Your task to perform on an android device: Search for hotels in Boston Image 0: 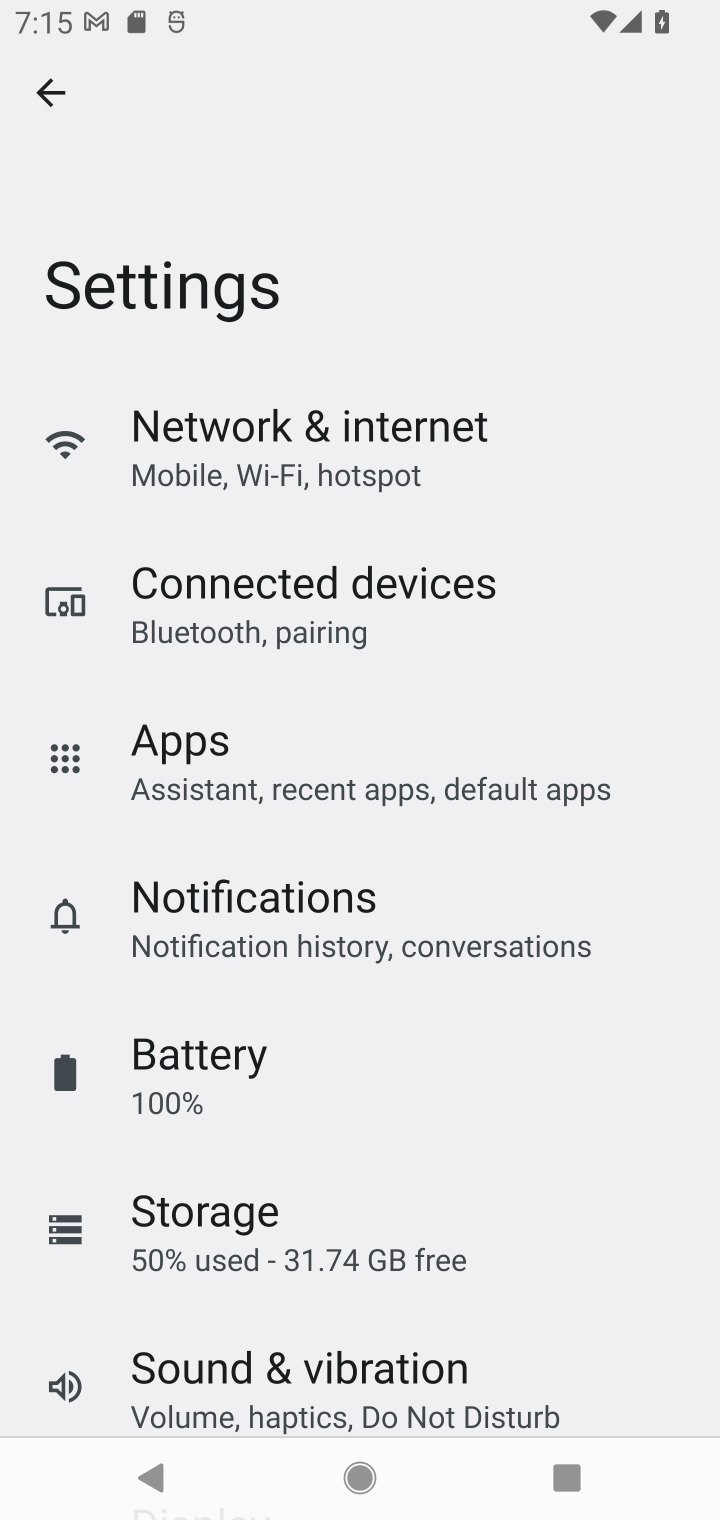
Step 0: press home button
Your task to perform on an android device: Search for hotels in Boston Image 1: 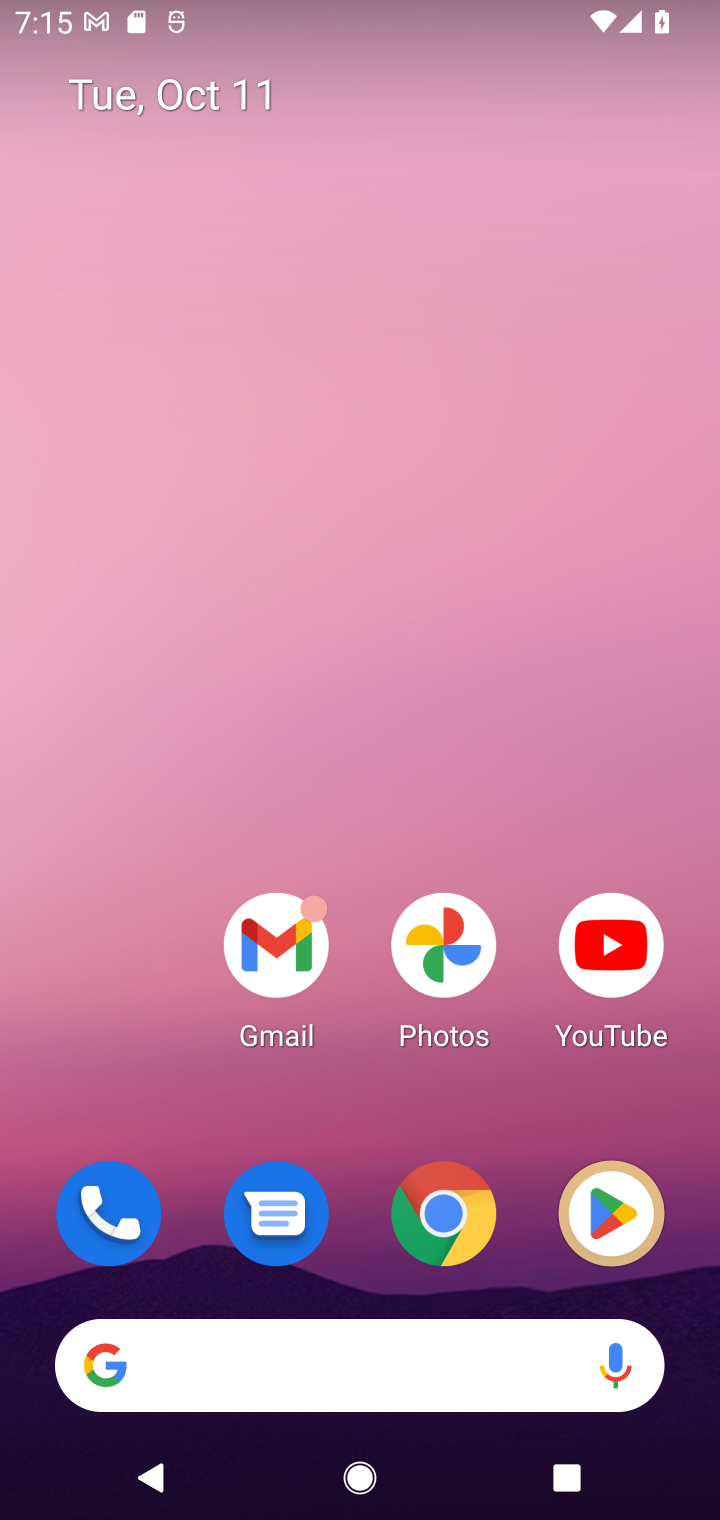
Step 1: drag from (294, 967) to (294, 240)
Your task to perform on an android device: Search for hotels in Boston Image 2: 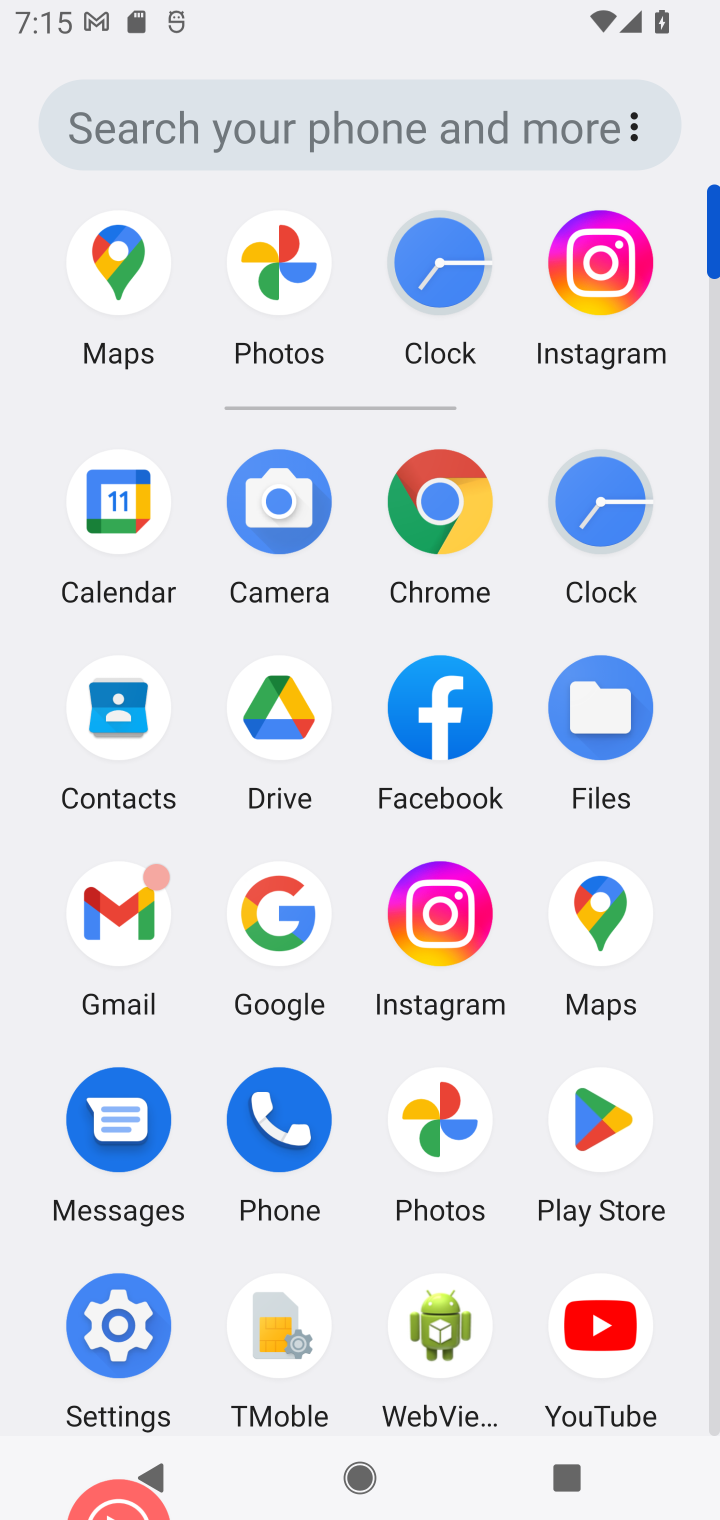
Step 2: click (281, 905)
Your task to perform on an android device: Search for hotels in Boston Image 3: 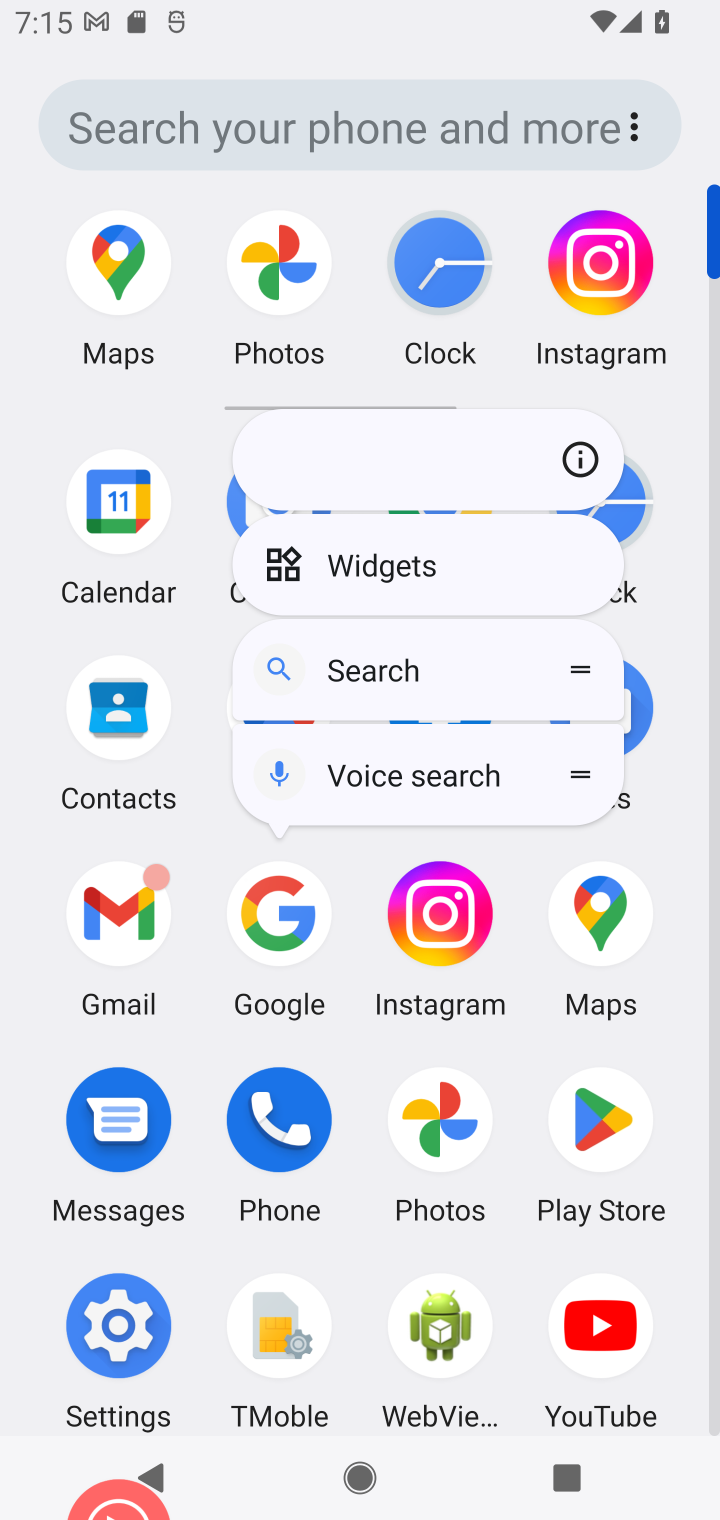
Step 3: click (281, 905)
Your task to perform on an android device: Search for hotels in Boston Image 4: 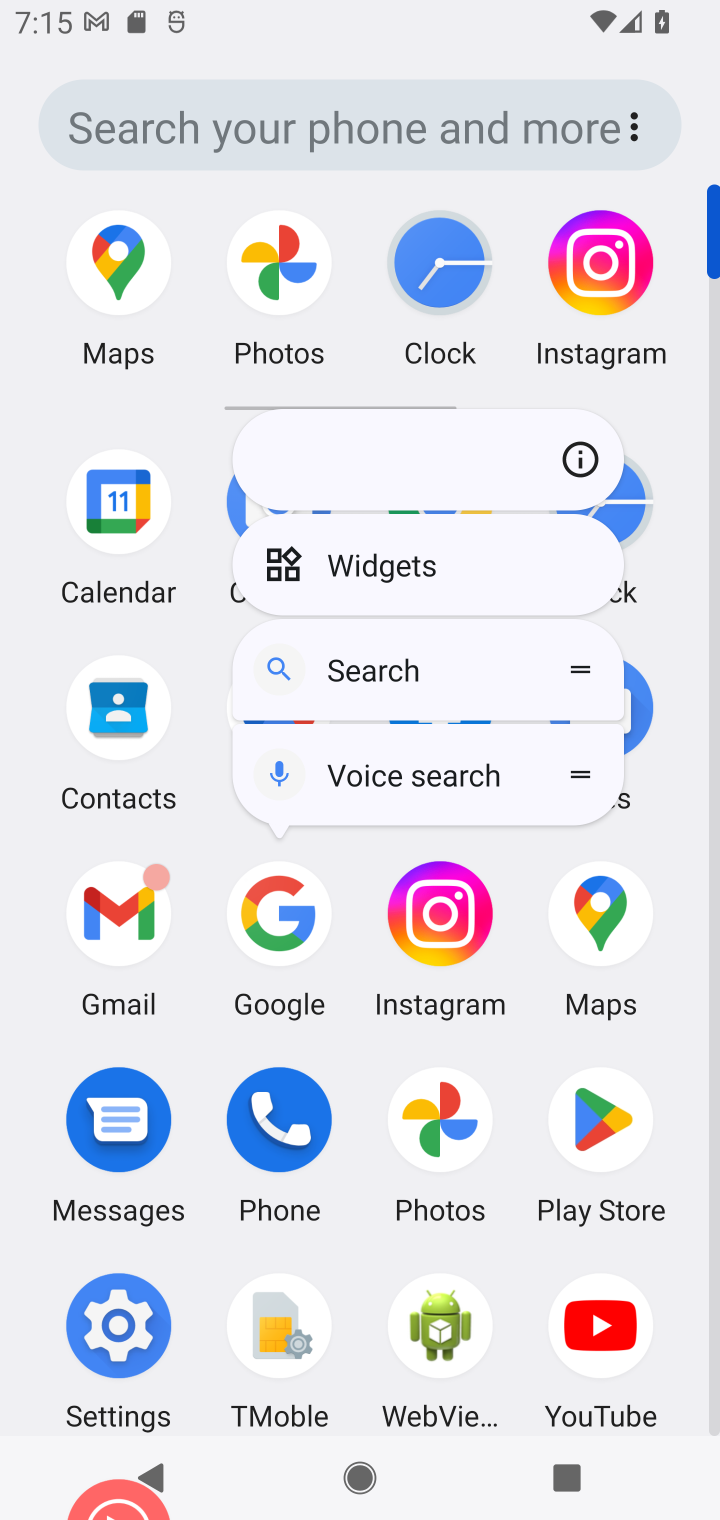
Step 4: click (312, 879)
Your task to perform on an android device: Search for hotels in Boston Image 5: 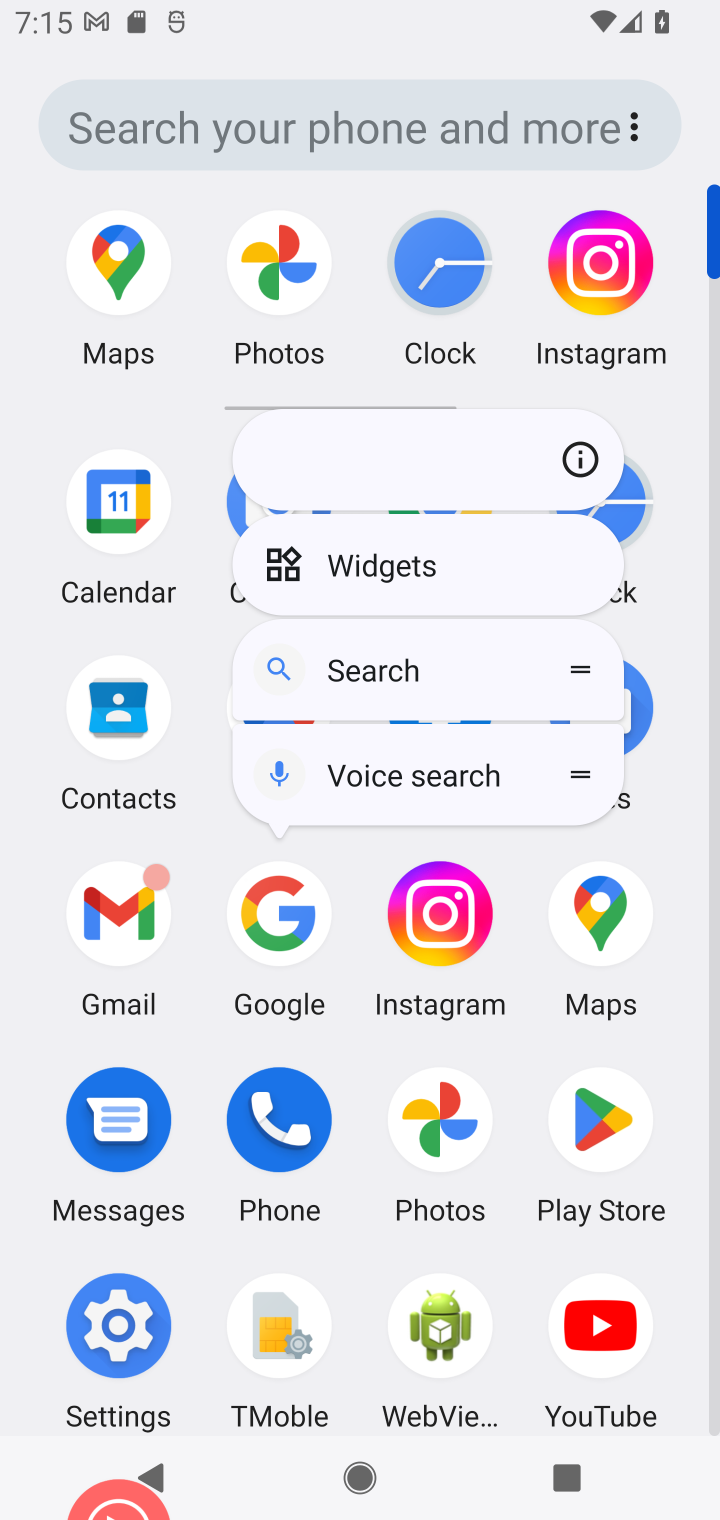
Step 5: click (292, 916)
Your task to perform on an android device: Search for hotels in Boston Image 6: 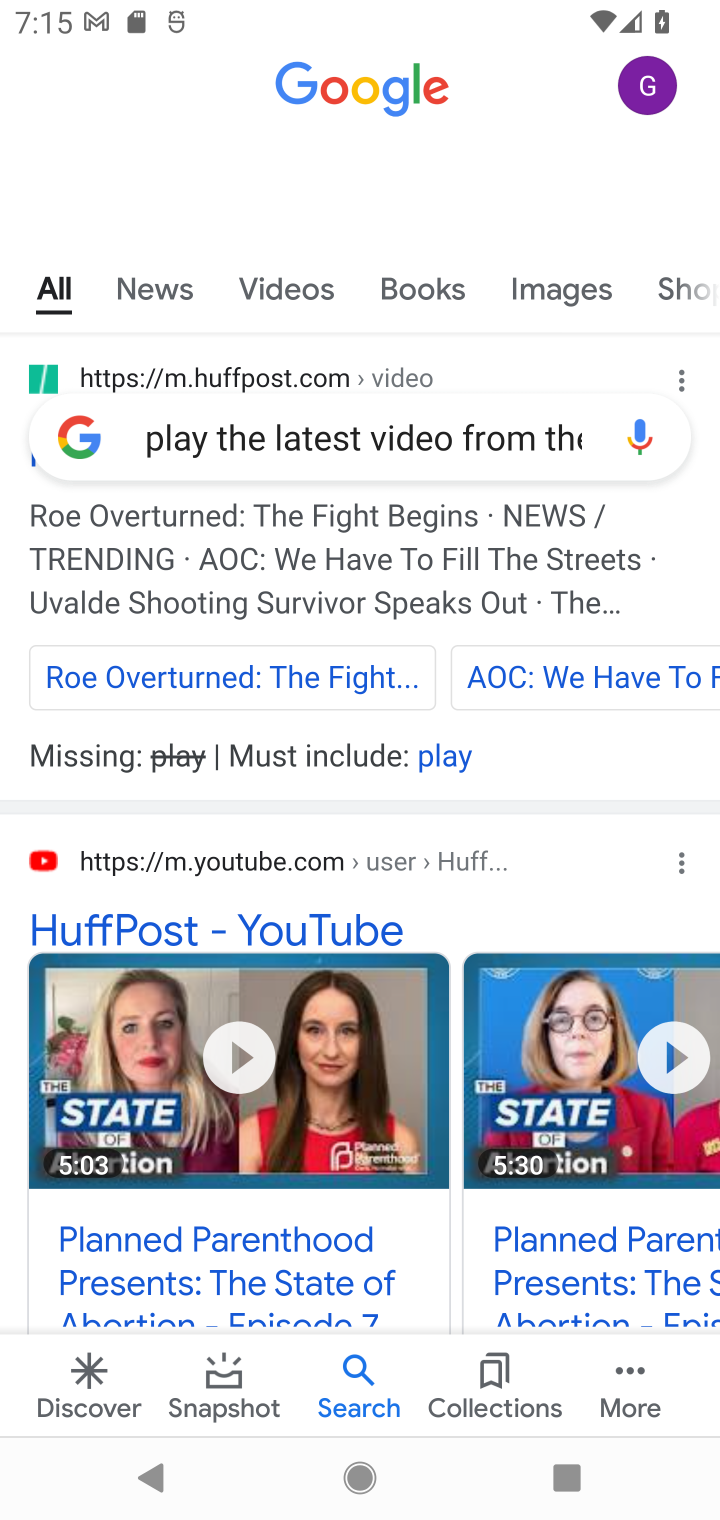
Step 6: click (433, 426)
Your task to perform on an android device: Search for hotels in Boston Image 7: 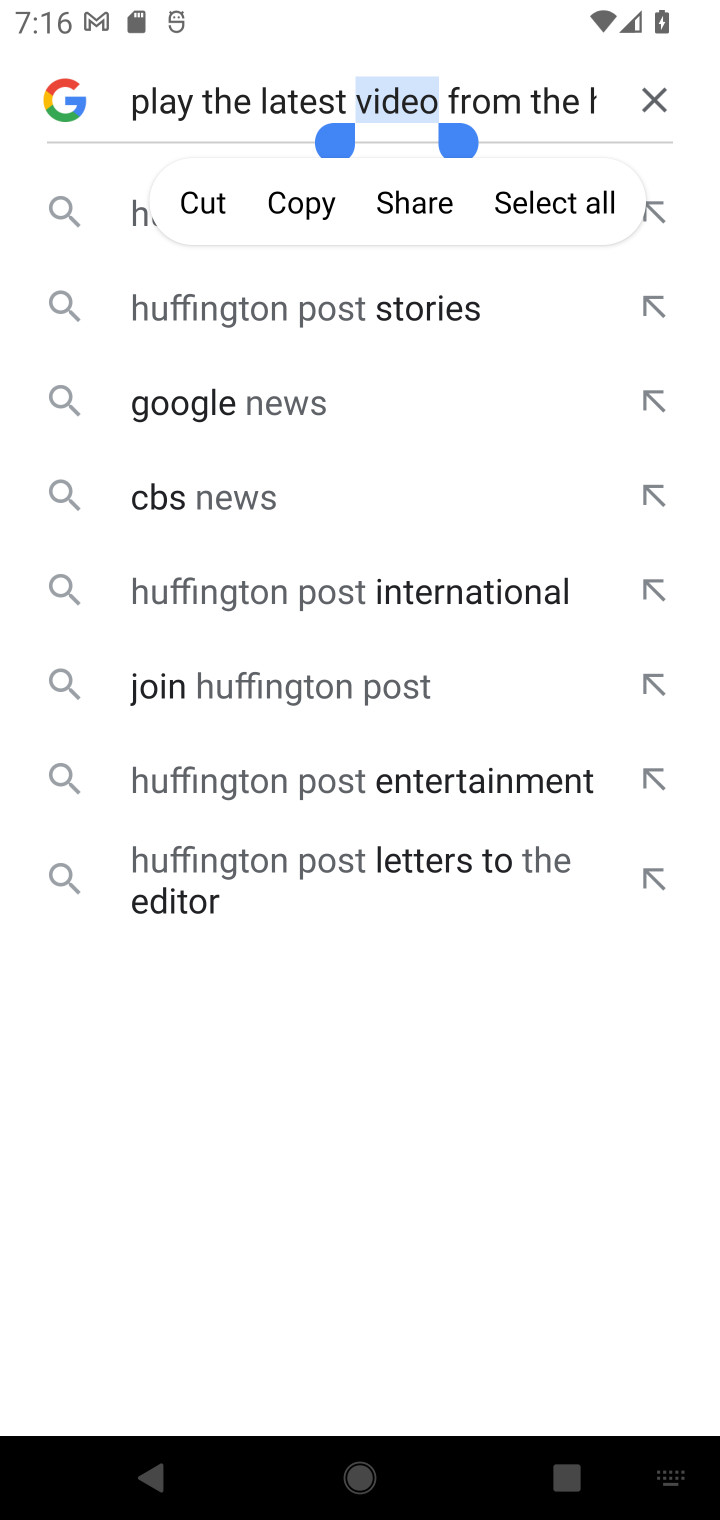
Step 7: click (638, 84)
Your task to perform on an android device: Search for hotels in Boston Image 8: 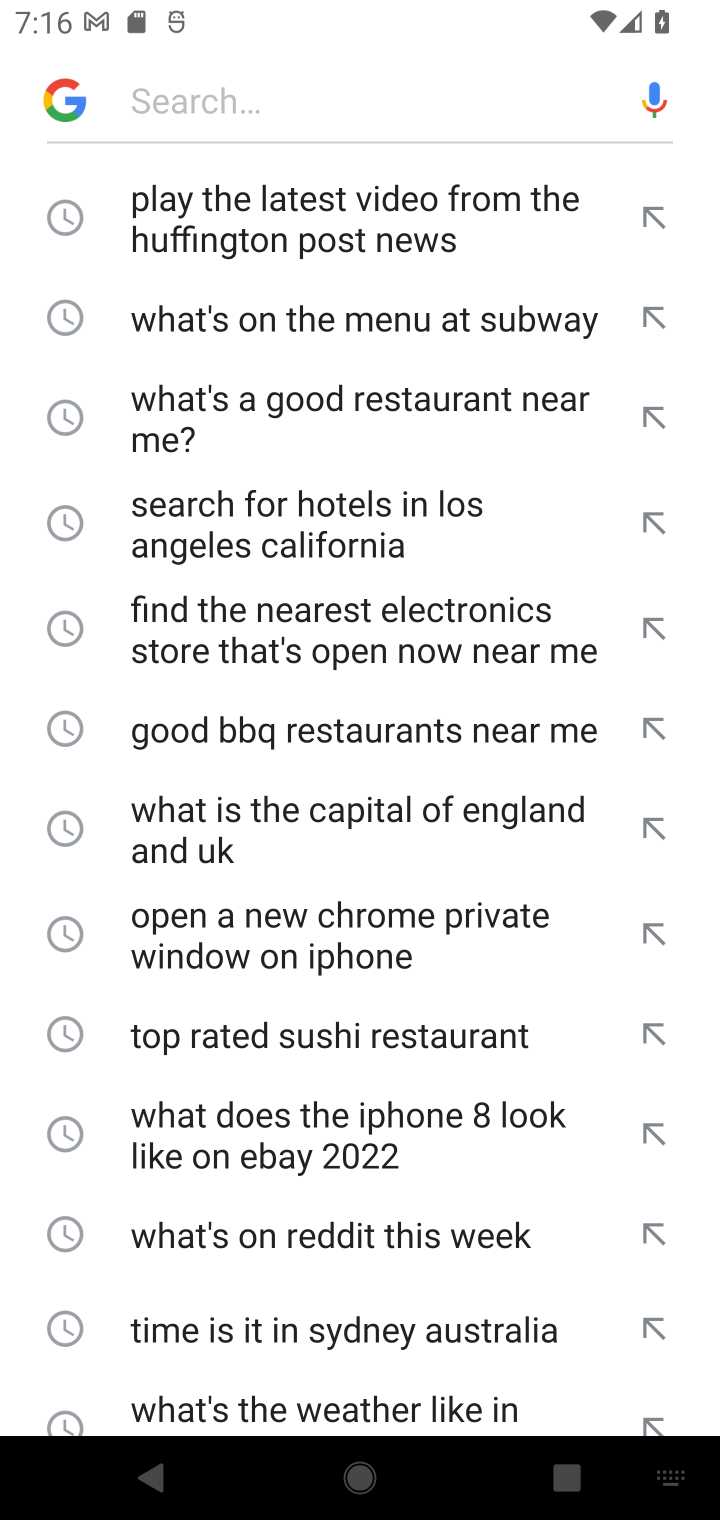
Step 8: click (261, 68)
Your task to perform on an android device: Search for hotels in Boston Image 9: 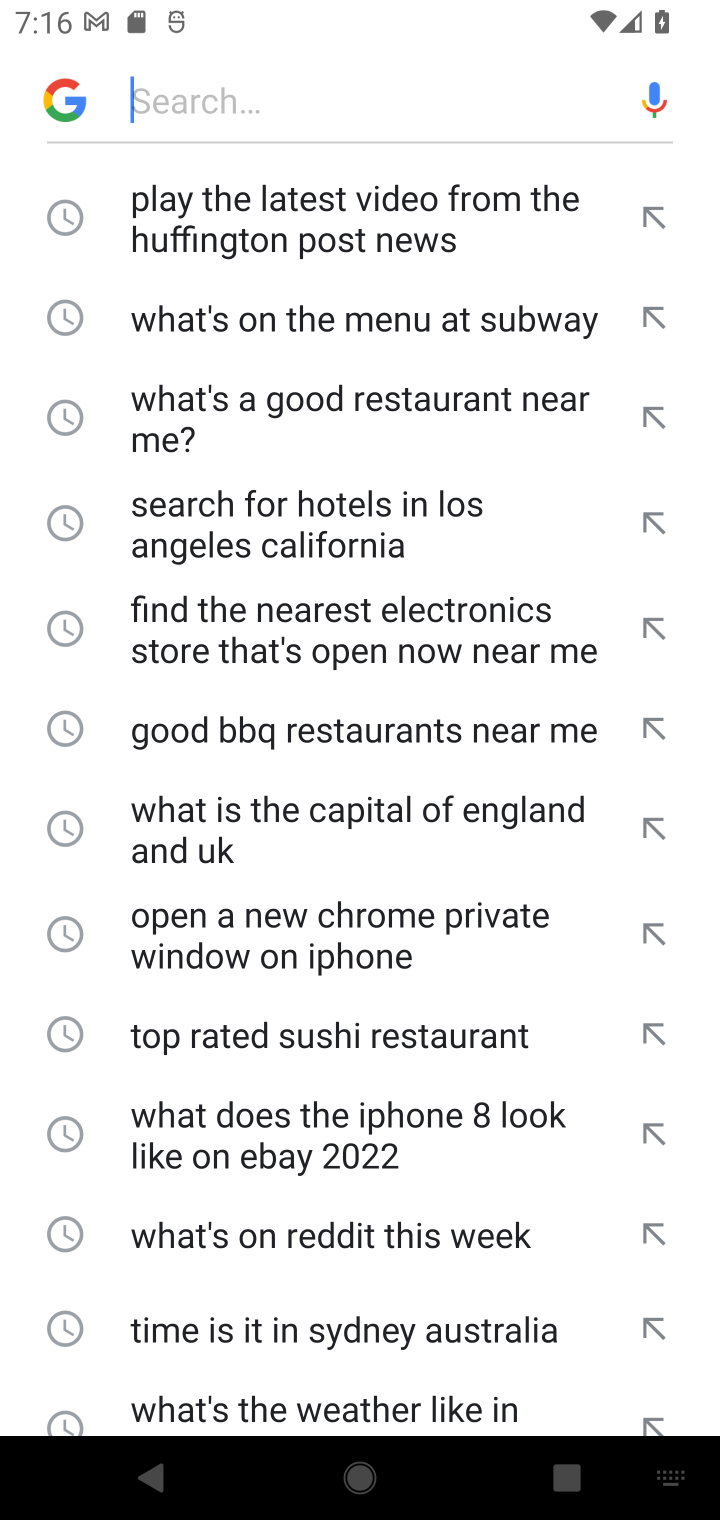
Step 9: type "Search for hotels in Boston "
Your task to perform on an android device: Search for hotels in Boston Image 10: 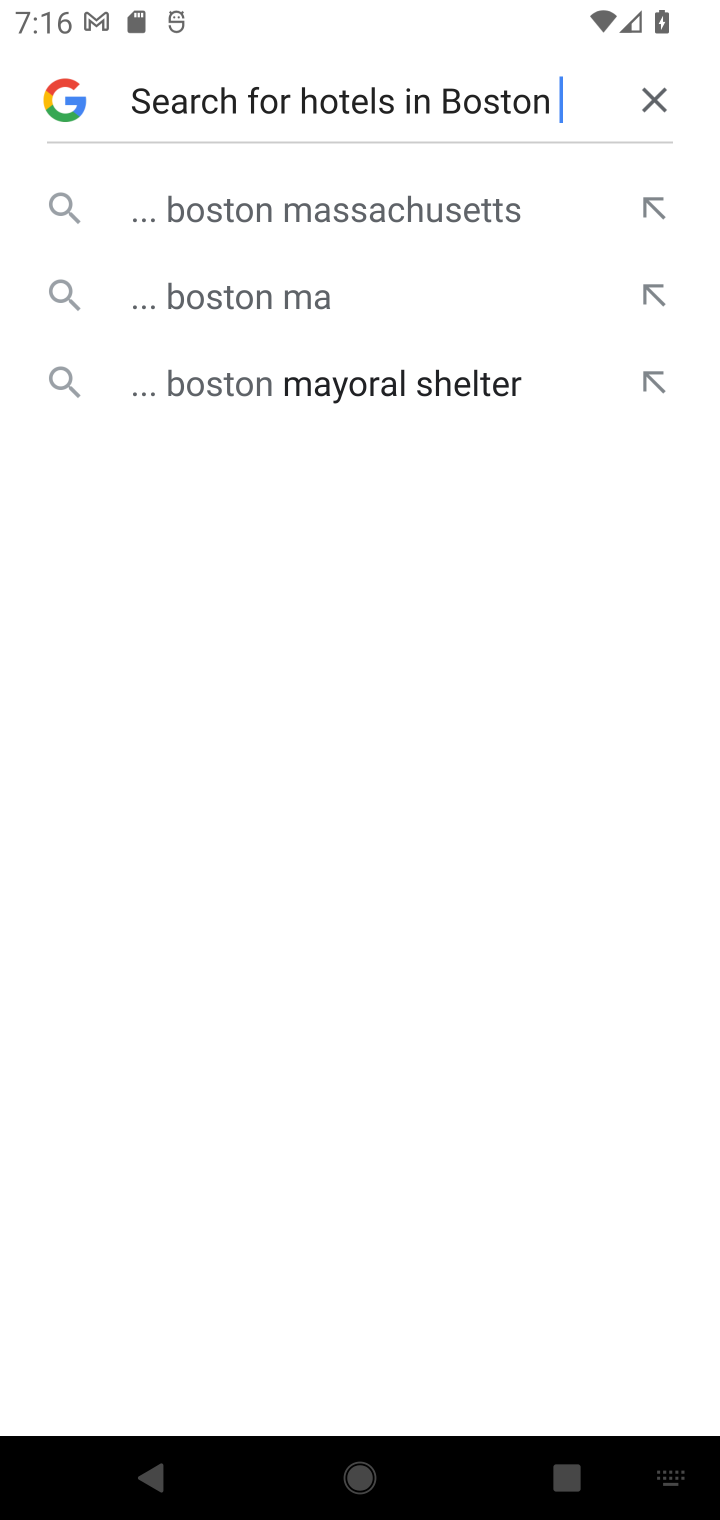
Step 10: click (289, 281)
Your task to perform on an android device: Search for hotels in Boston Image 11: 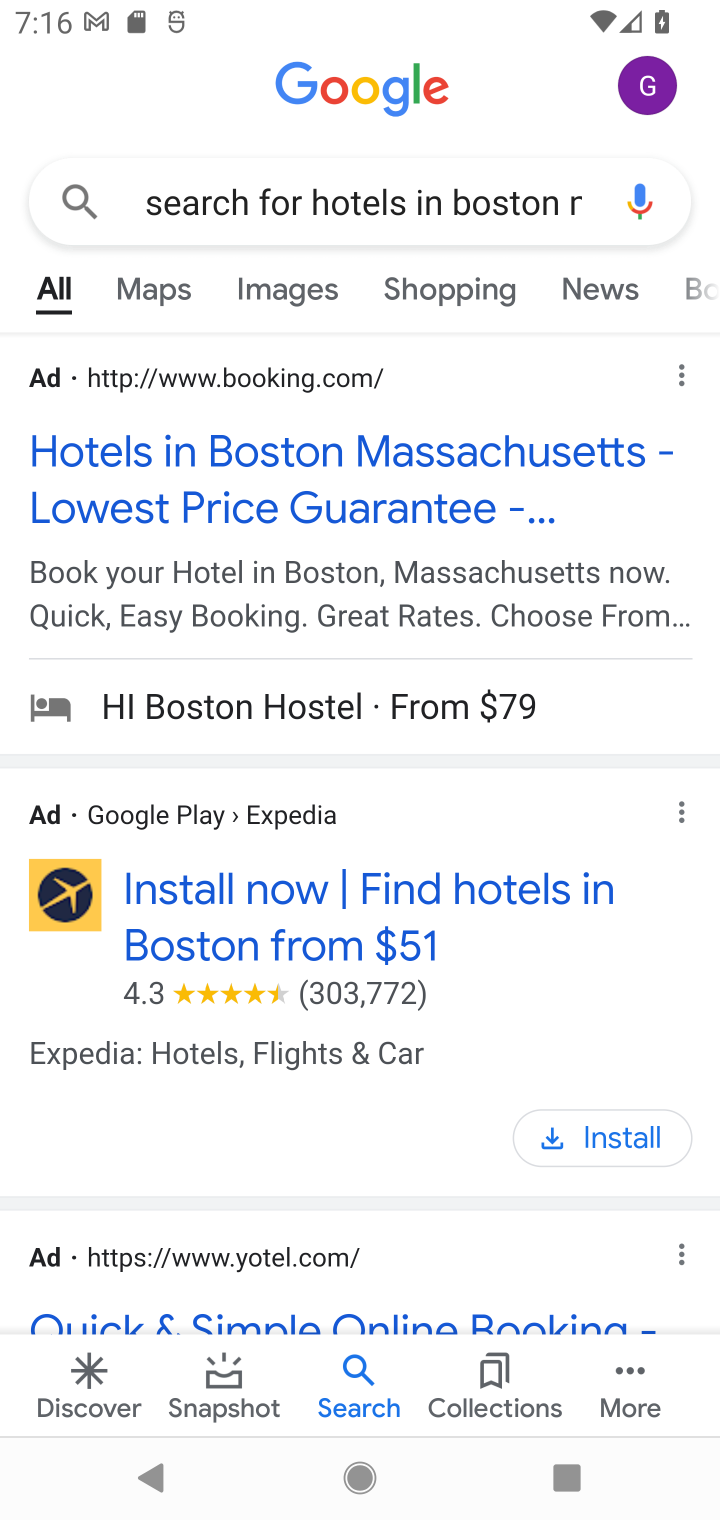
Step 11: click (295, 450)
Your task to perform on an android device: Search for hotels in Boston Image 12: 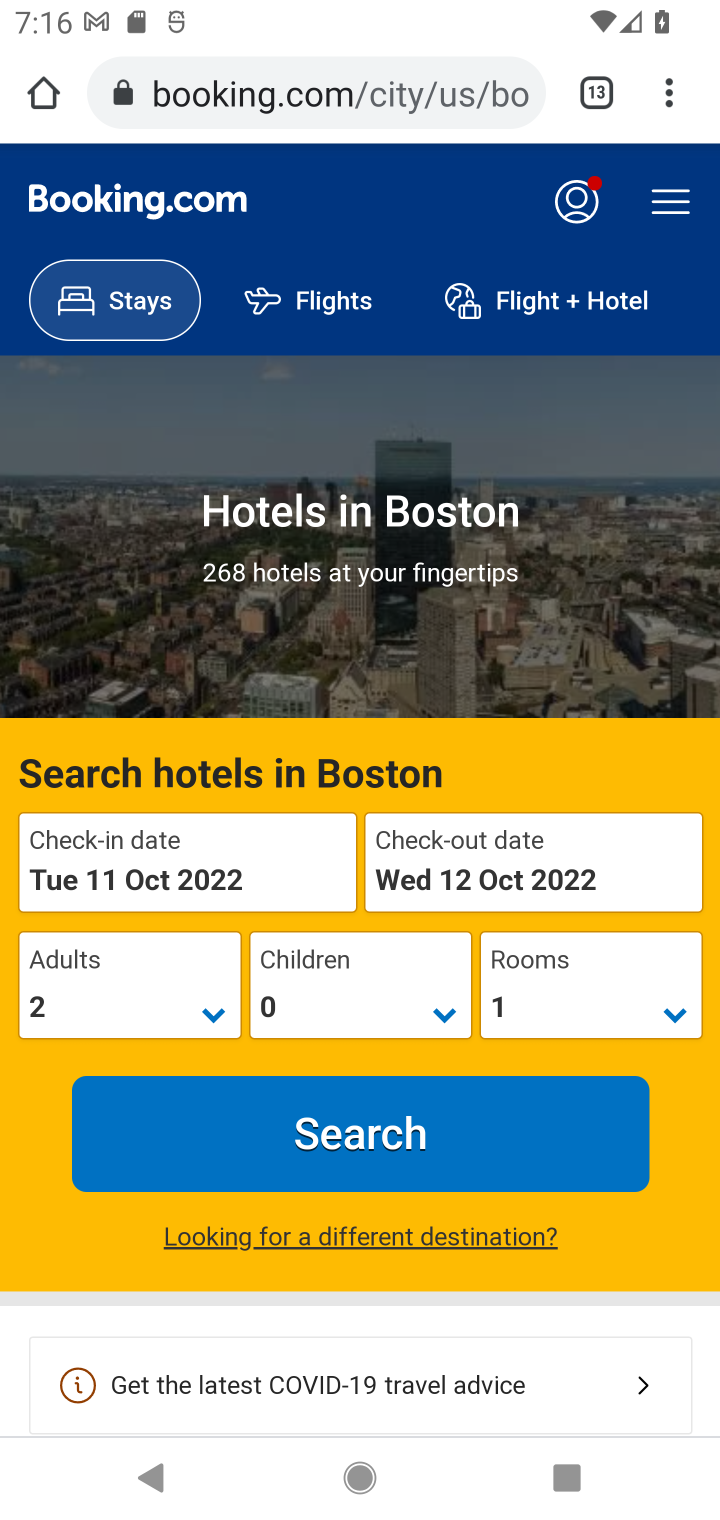
Step 12: click (357, 1143)
Your task to perform on an android device: Search for hotels in Boston Image 13: 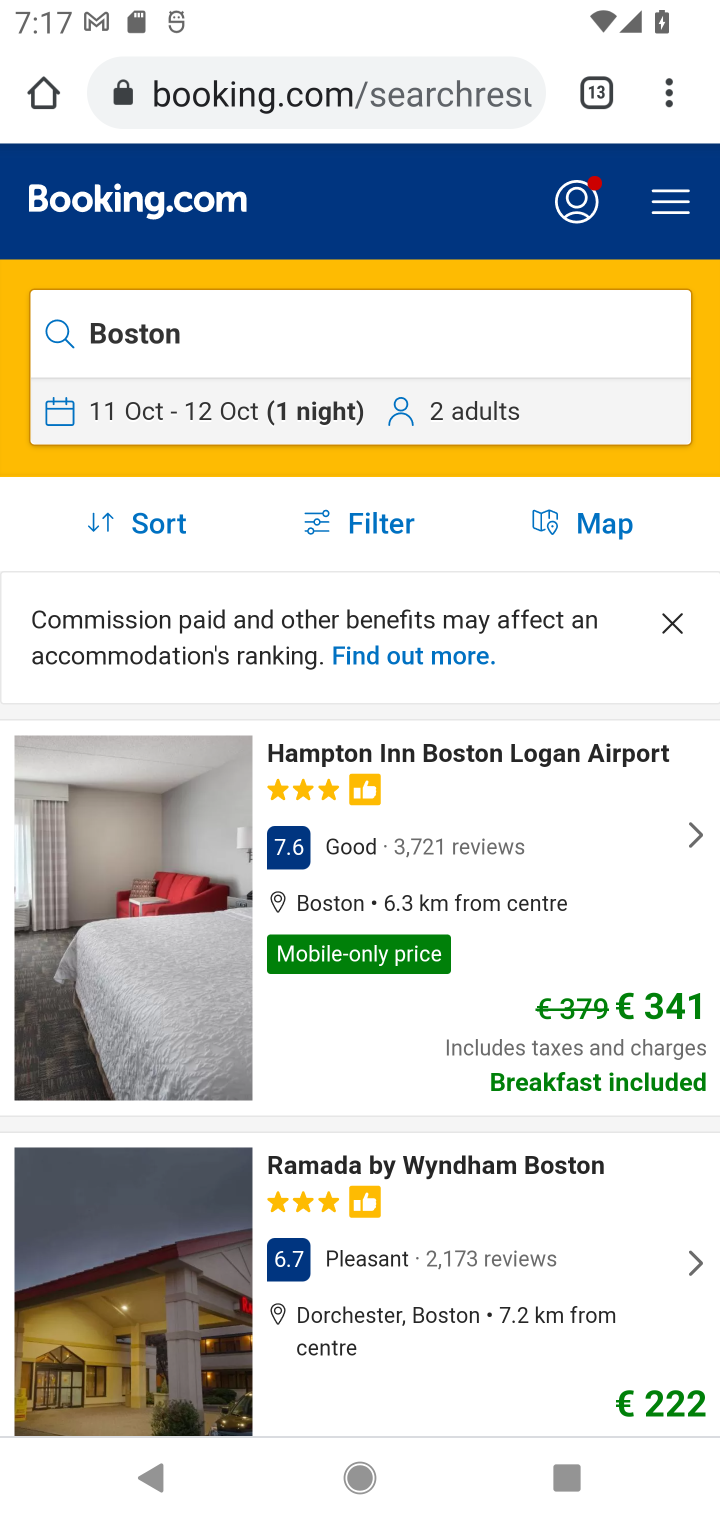
Step 13: task complete